Your task to perform on an android device: Search for vegetarian restaurants on Maps Image 0: 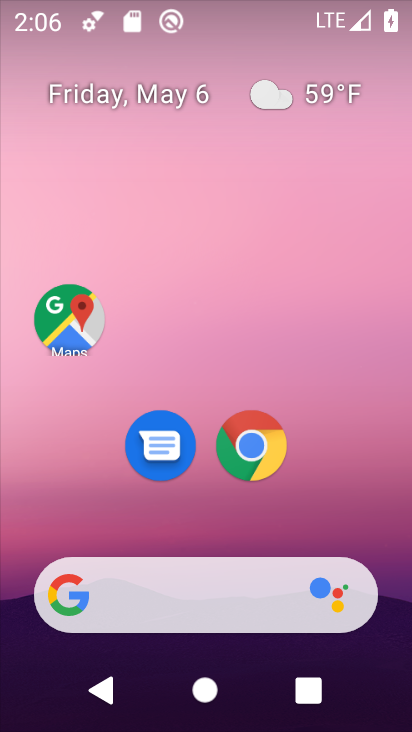
Step 0: drag from (327, 538) to (366, 1)
Your task to perform on an android device: Search for vegetarian restaurants on Maps Image 1: 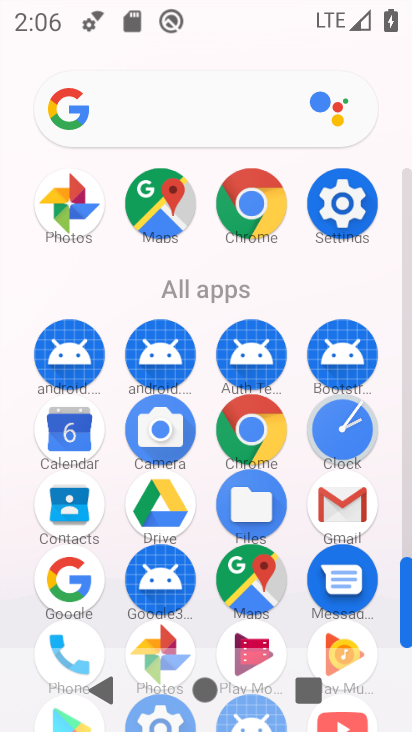
Step 1: click (262, 610)
Your task to perform on an android device: Search for vegetarian restaurants on Maps Image 2: 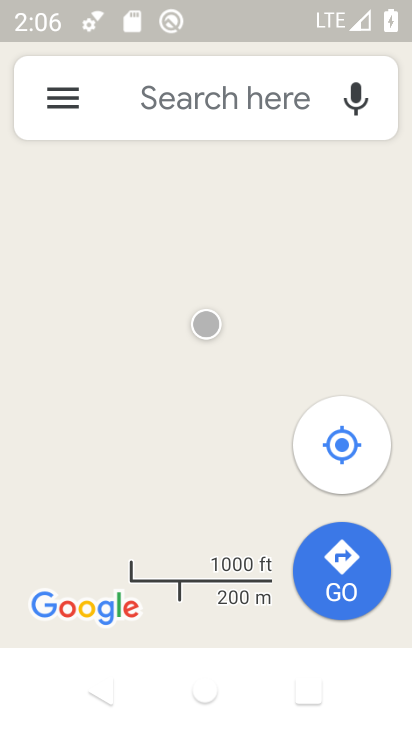
Step 2: click (208, 108)
Your task to perform on an android device: Search for vegetarian restaurants on Maps Image 3: 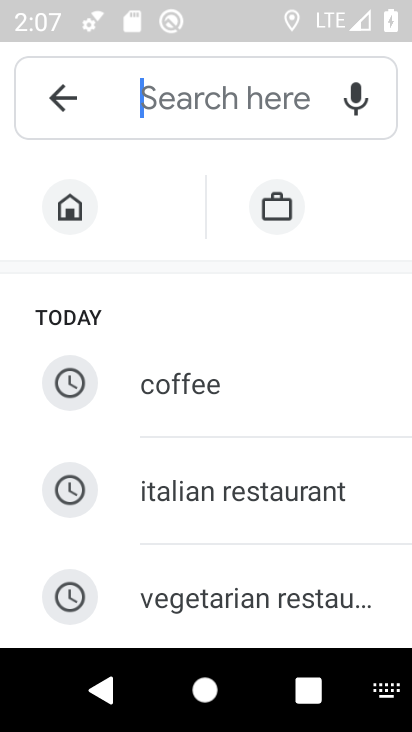
Step 3: type "vegetarian restaurants"
Your task to perform on an android device: Search for vegetarian restaurants on Maps Image 4: 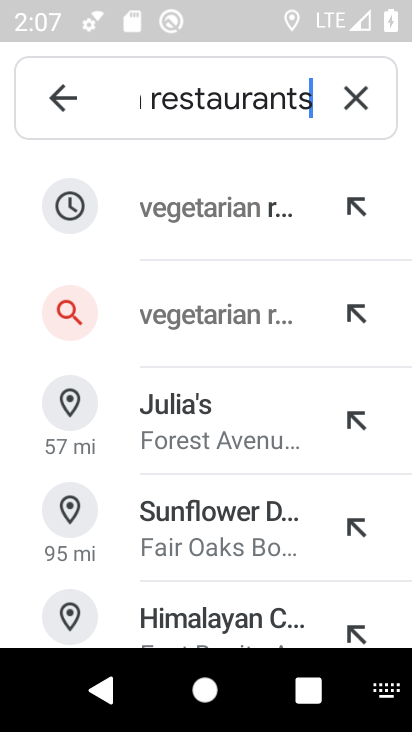
Step 4: click (260, 323)
Your task to perform on an android device: Search for vegetarian restaurants on Maps Image 5: 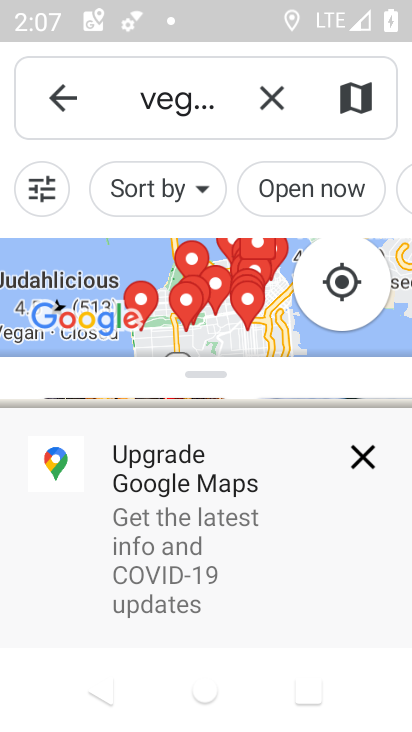
Step 5: click (379, 454)
Your task to perform on an android device: Search for vegetarian restaurants on Maps Image 6: 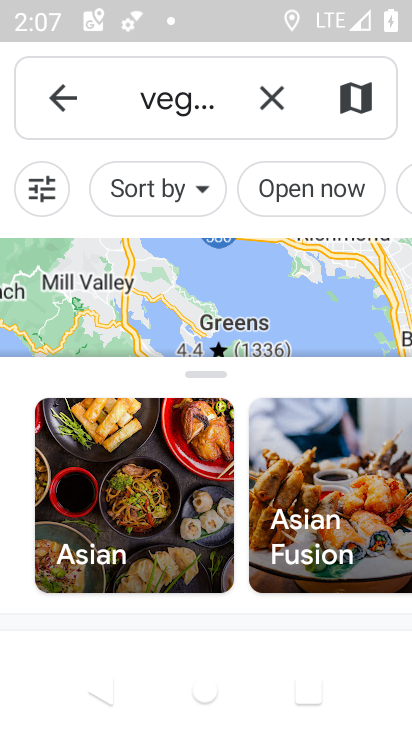
Step 6: task complete